Your task to perform on an android device: delete the emails in spam in the gmail app Image 0: 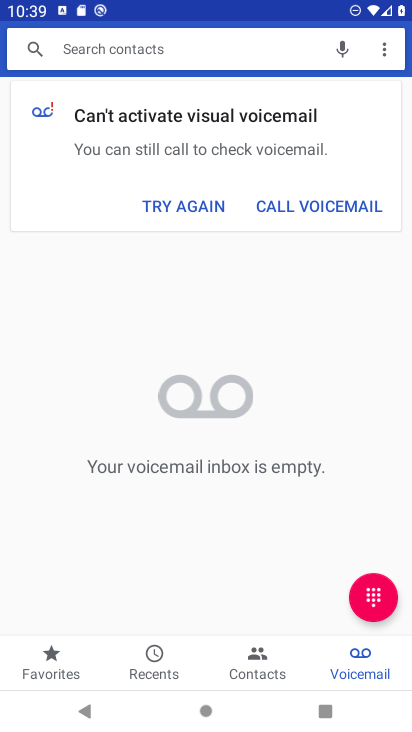
Step 0: press home button
Your task to perform on an android device: delete the emails in spam in the gmail app Image 1: 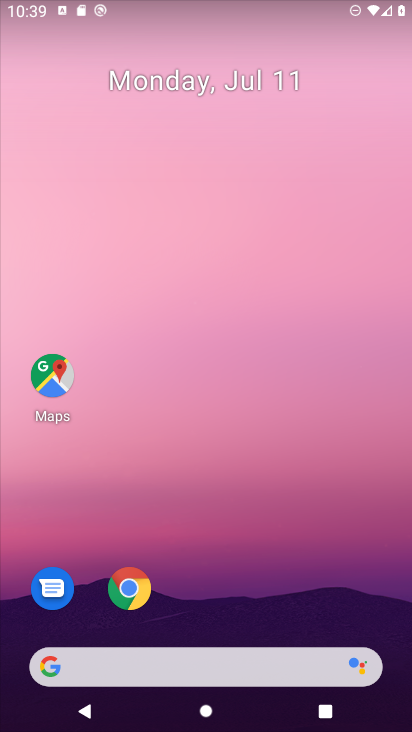
Step 1: drag from (374, 608) to (200, 64)
Your task to perform on an android device: delete the emails in spam in the gmail app Image 2: 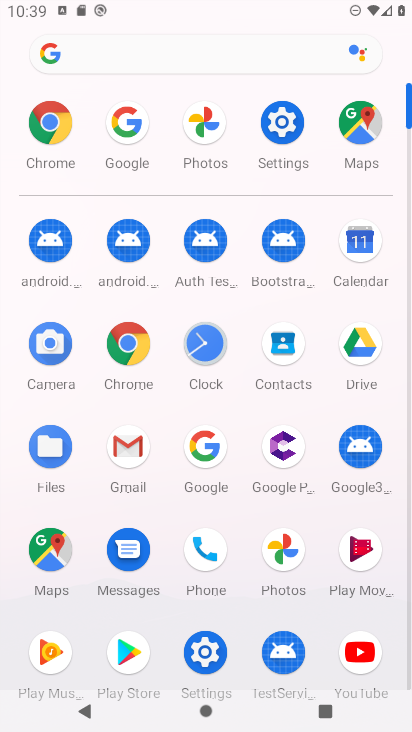
Step 2: click (130, 444)
Your task to perform on an android device: delete the emails in spam in the gmail app Image 3: 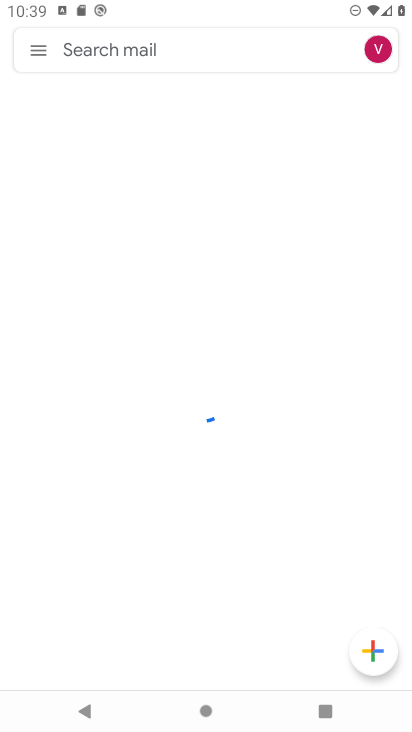
Step 3: task complete